Your task to perform on an android device: Google the capital of Bolivia Image 0: 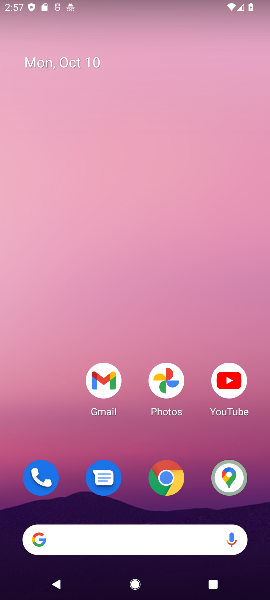
Step 0: click (159, 495)
Your task to perform on an android device: Google the capital of Bolivia Image 1: 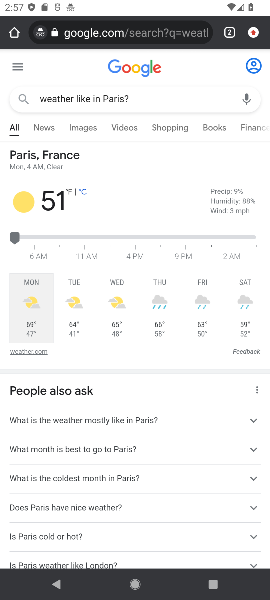
Step 1: click (160, 43)
Your task to perform on an android device: Google the capital of Bolivia Image 2: 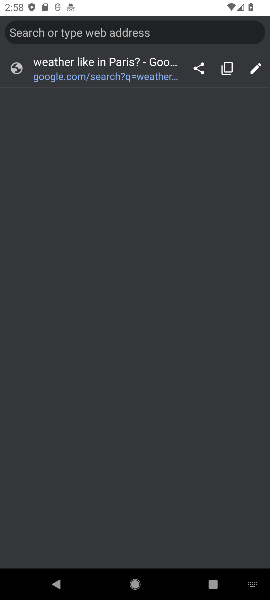
Step 2: type "capital of Bolivia"
Your task to perform on an android device: Google the capital of Bolivia Image 3: 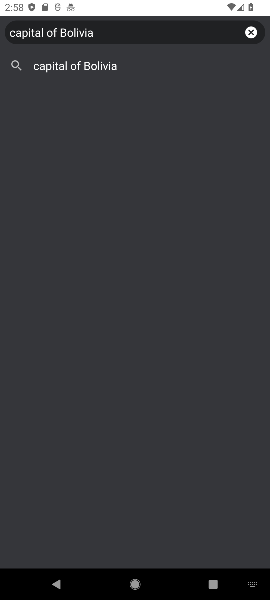
Step 3: click (102, 70)
Your task to perform on an android device: Google the capital of Bolivia Image 4: 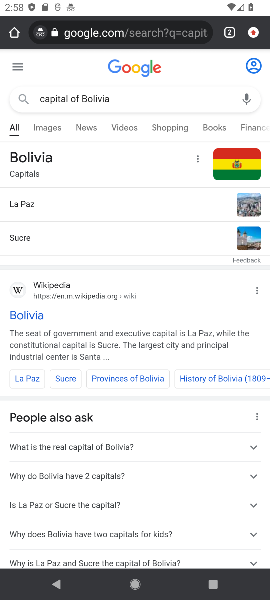
Step 4: task complete